Your task to perform on an android device: delete the emails in spam in the gmail app Image 0: 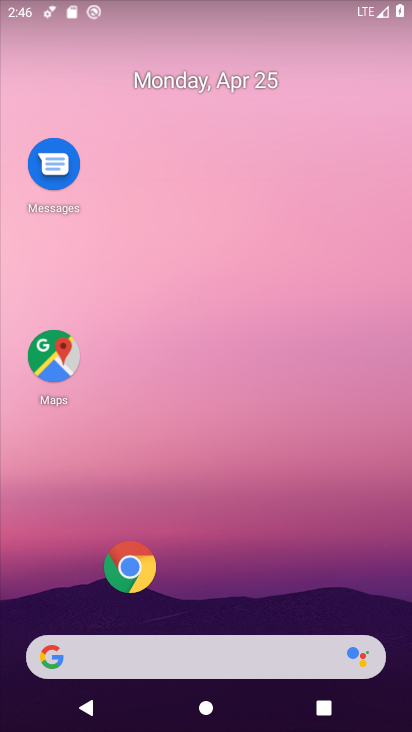
Step 0: drag from (194, 519) to (133, 173)
Your task to perform on an android device: delete the emails in spam in the gmail app Image 1: 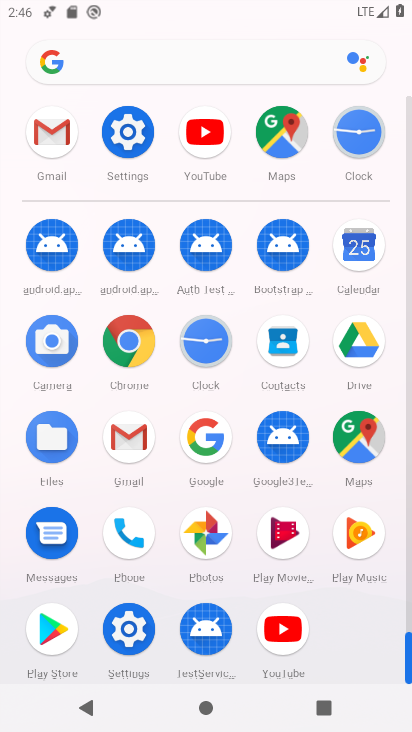
Step 1: click (140, 439)
Your task to perform on an android device: delete the emails in spam in the gmail app Image 2: 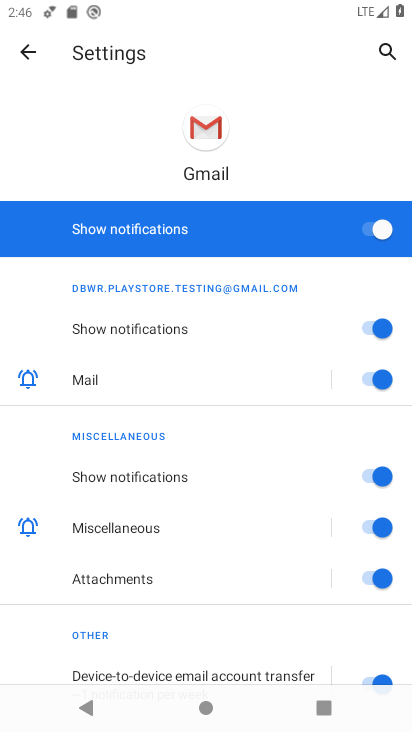
Step 2: click (32, 45)
Your task to perform on an android device: delete the emails in spam in the gmail app Image 3: 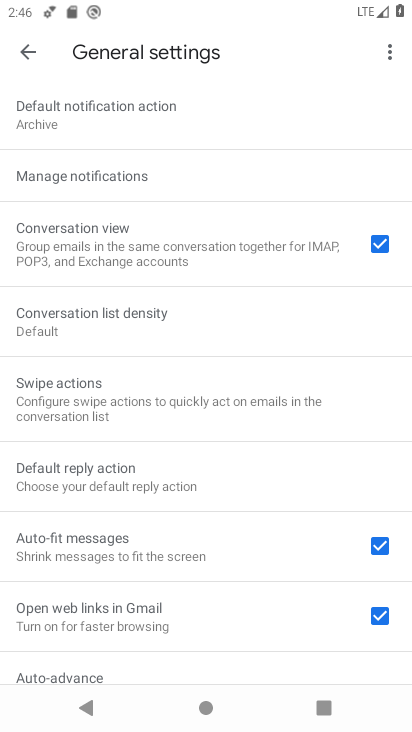
Step 3: click (32, 45)
Your task to perform on an android device: delete the emails in spam in the gmail app Image 4: 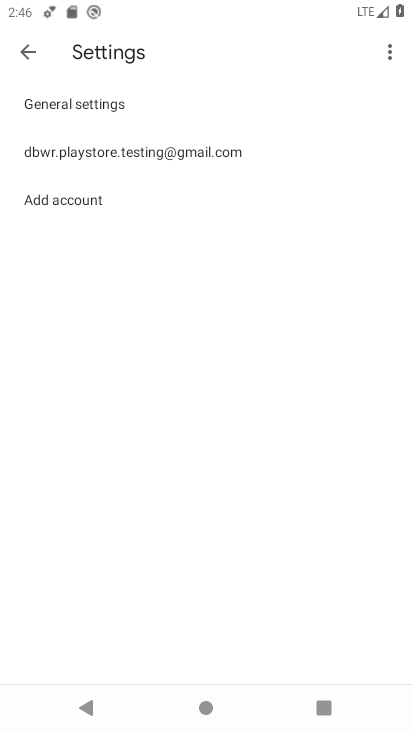
Step 4: click (32, 45)
Your task to perform on an android device: delete the emails in spam in the gmail app Image 5: 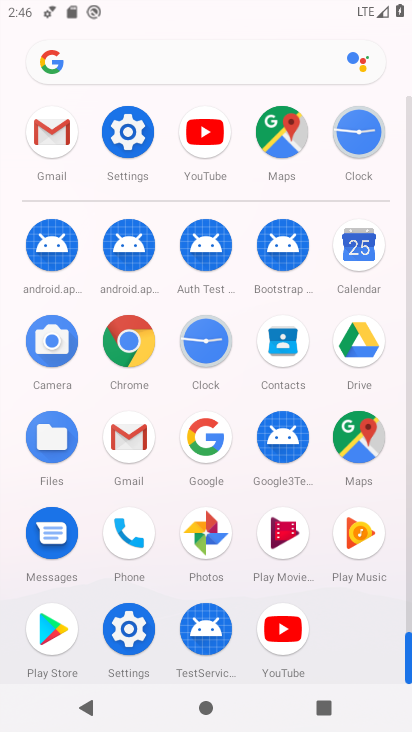
Step 5: click (47, 139)
Your task to perform on an android device: delete the emails in spam in the gmail app Image 6: 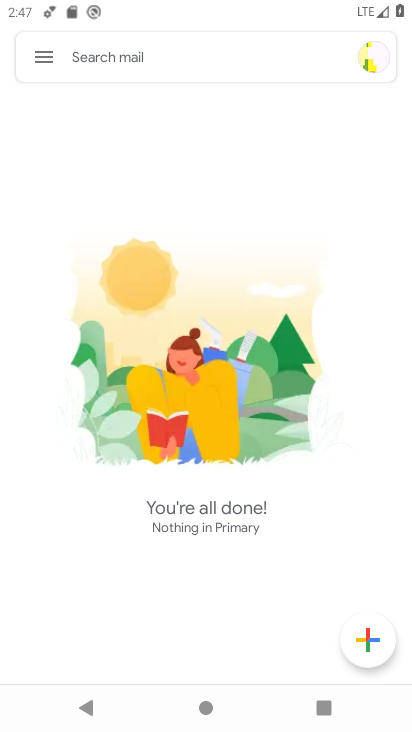
Step 6: click (43, 54)
Your task to perform on an android device: delete the emails in spam in the gmail app Image 7: 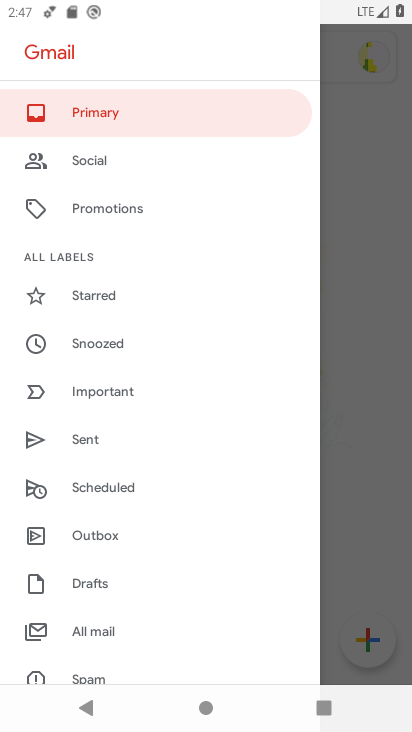
Step 7: drag from (72, 453) to (90, 154)
Your task to perform on an android device: delete the emails in spam in the gmail app Image 8: 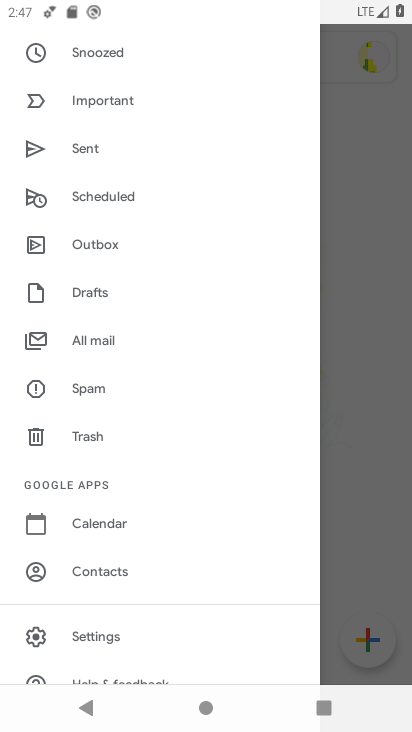
Step 8: click (78, 389)
Your task to perform on an android device: delete the emails in spam in the gmail app Image 9: 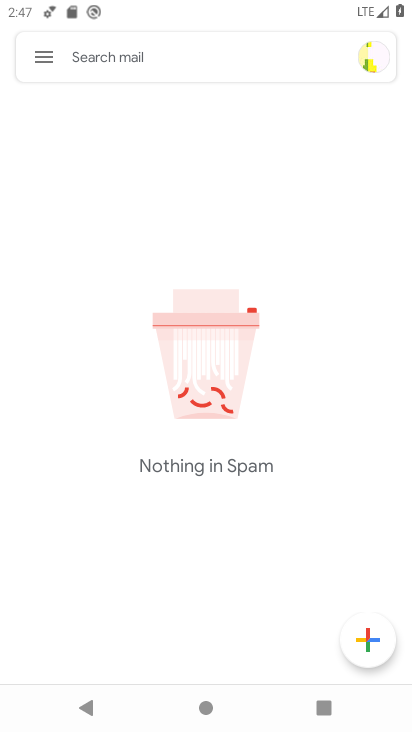
Step 9: task complete